Your task to perform on an android device: Add beats solo 3 to the cart on ebay Image 0: 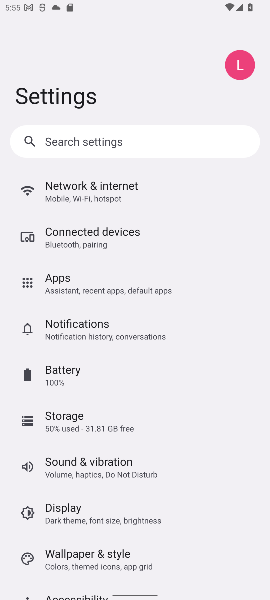
Step 0: press home button
Your task to perform on an android device: Add beats solo 3 to the cart on ebay Image 1: 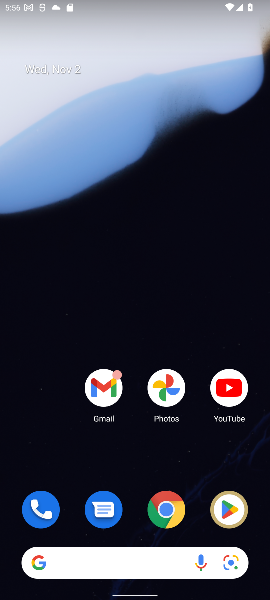
Step 1: click (109, 579)
Your task to perform on an android device: Add beats solo 3 to the cart on ebay Image 2: 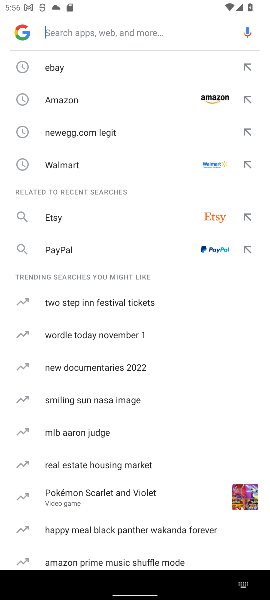
Step 2: click (48, 66)
Your task to perform on an android device: Add beats solo 3 to the cart on ebay Image 3: 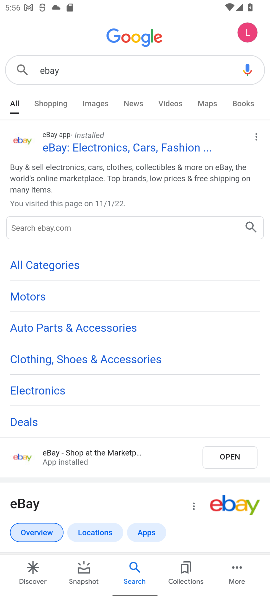
Step 3: drag from (82, 487) to (59, 362)
Your task to perform on an android device: Add beats solo 3 to the cart on ebay Image 4: 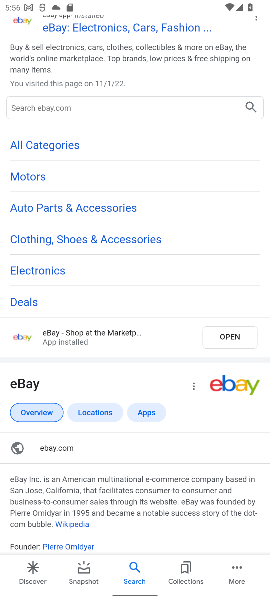
Step 4: click (56, 443)
Your task to perform on an android device: Add beats solo 3 to the cart on ebay Image 5: 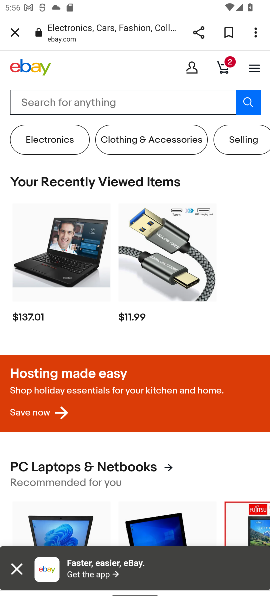
Step 5: click (69, 102)
Your task to perform on an android device: Add beats solo 3 to the cart on ebay Image 6: 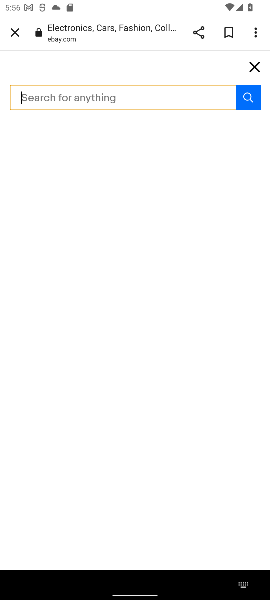
Step 6: type "beats solo 3"
Your task to perform on an android device: Add beats solo 3 to the cart on ebay Image 7: 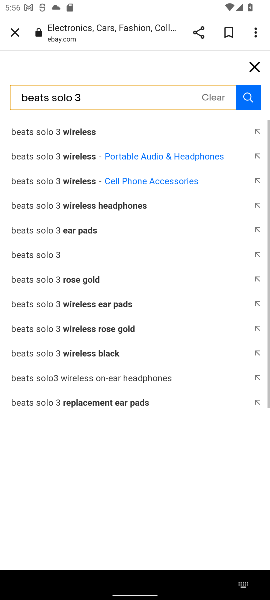
Step 7: click (248, 98)
Your task to perform on an android device: Add beats solo 3 to the cart on ebay Image 8: 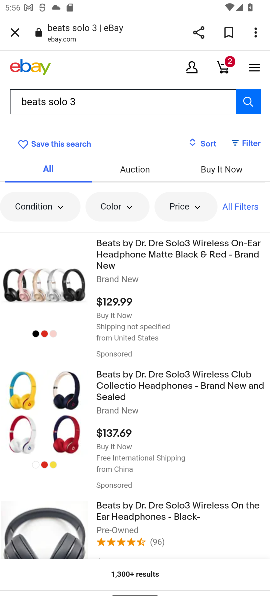
Step 8: click (124, 267)
Your task to perform on an android device: Add beats solo 3 to the cart on ebay Image 9: 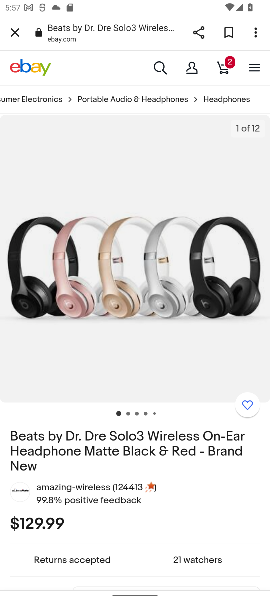
Step 9: drag from (193, 402) to (169, 260)
Your task to perform on an android device: Add beats solo 3 to the cart on ebay Image 10: 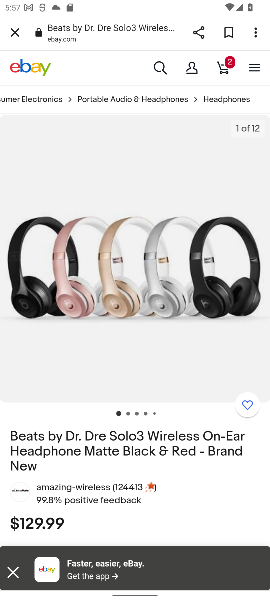
Step 10: drag from (164, 495) to (146, 266)
Your task to perform on an android device: Add beats solo 3 to the cart on ebay Image 11: 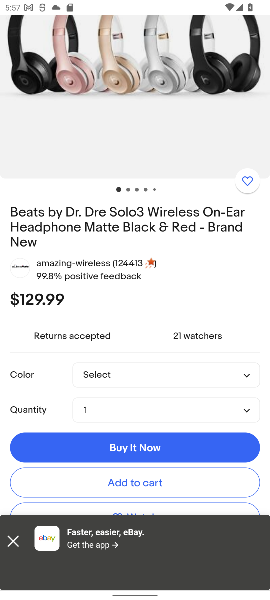
Step 11: click (121, 481)
Your task to perform on an android device: Add beats solo 3 to the cart on ebay Image 12: 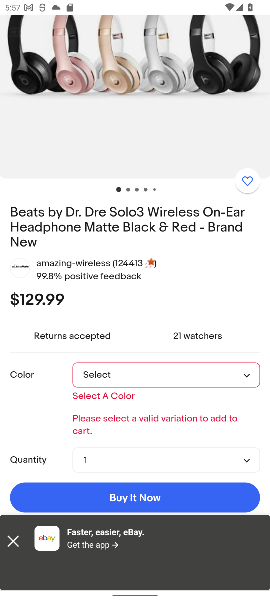
Step 12: click (208, 375)
Your task to perform on an android device: Add beats solo 3 to the cart on ebay Image 13: 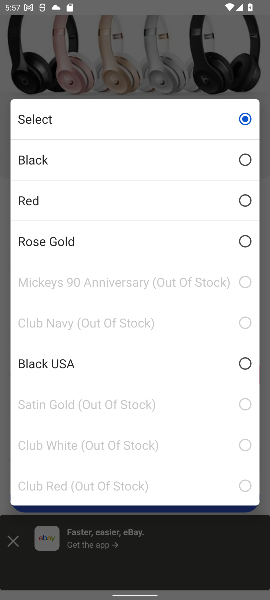
Step 13: click (171, 235)
Your task to perform on an android device: Add beats solo 3 to the cart on ebay Image 14: 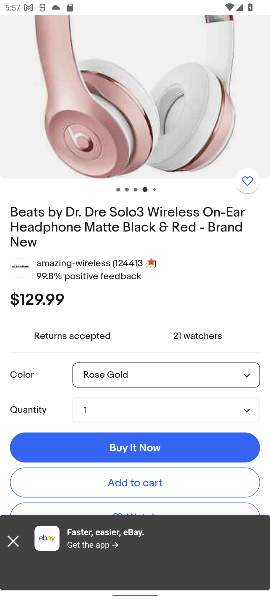
Step 14: click (127, 483)
Your task to perform on an android device: Add beats solo 3 to the cart on ebay Image 15: 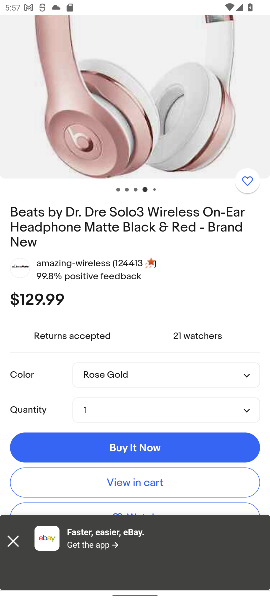
Step 15: task complete